Your task to perform on an android device: clear all cookies in the chrome app Image 0: 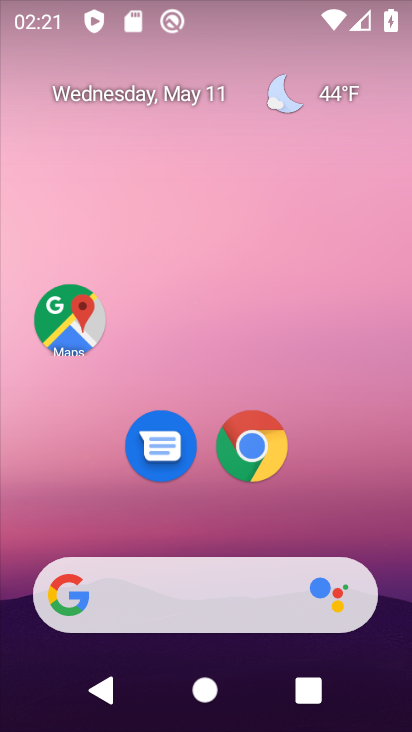
Step 0: click (252, 433)
Your task to perform on an android device: clear all cookies in the chrome app Image 1: 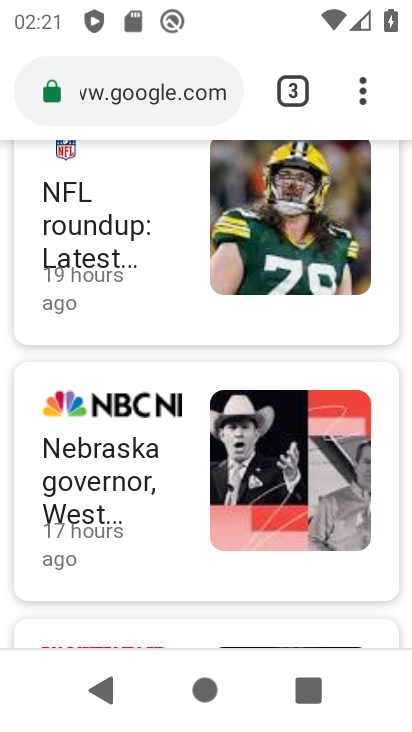
Step 1: click (365, 101)
Your task to perform on an android device: clear all cookies in the chrome app Image 2: 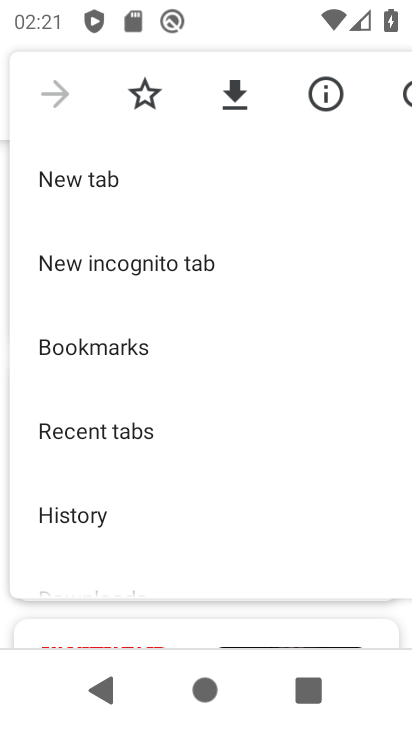
Step 2: click (119, 513)
Your task to perform on an android device: clear all cookies in the chrome app Image 3: 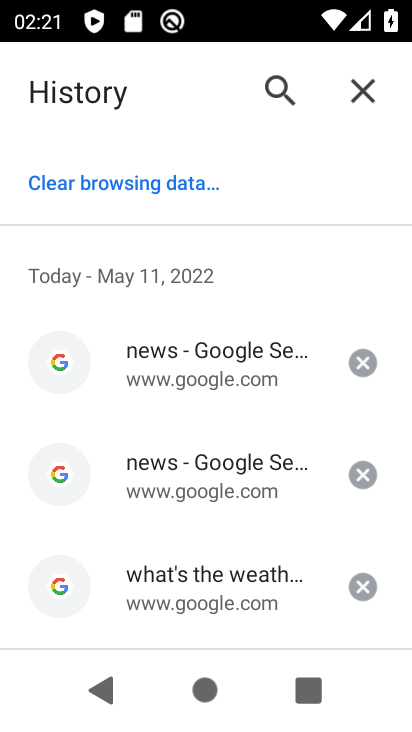
Step 3: click (104, 190)
Your task to perform on an android device: clear all cookies in the chrome app Image 4: 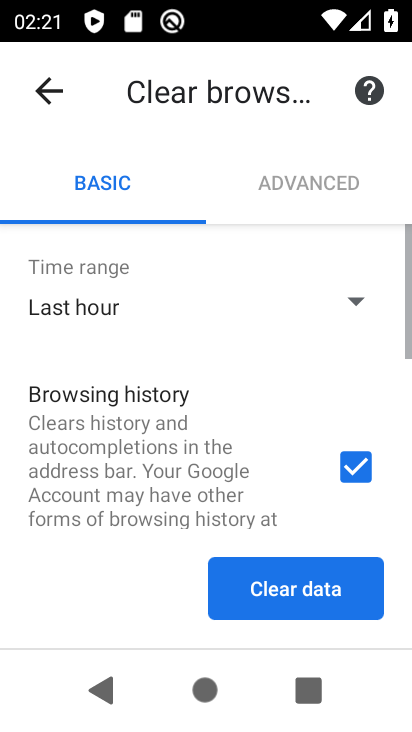
Step 4: drag from (182, 466) to (186, 221)
Your task to perform on an android device: clear all cookies in the chrome app Image 5: 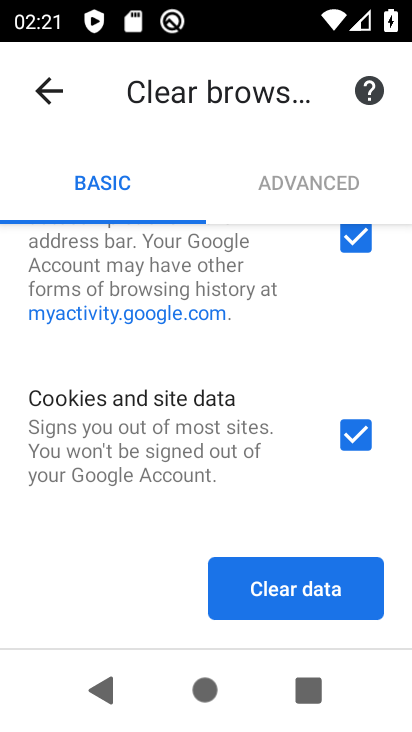
Step 5: click (260, 587)
Your task to perform on an android device: clear all cookies in the chrome app Image 6: 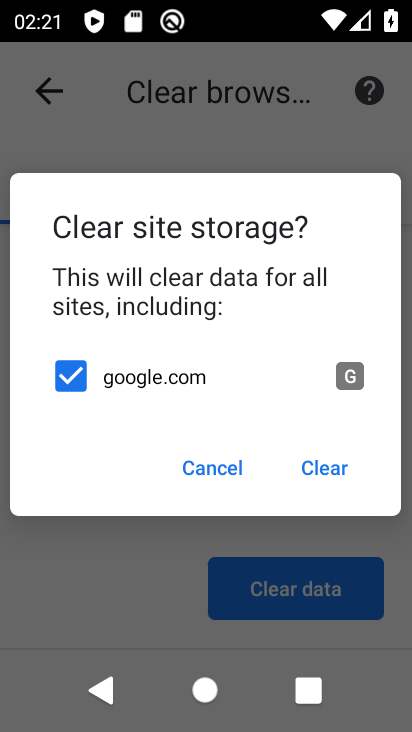
Step 6: click (328, 470)
Your task to perform on an android device: clear all cookies in the chrome app Image 7: 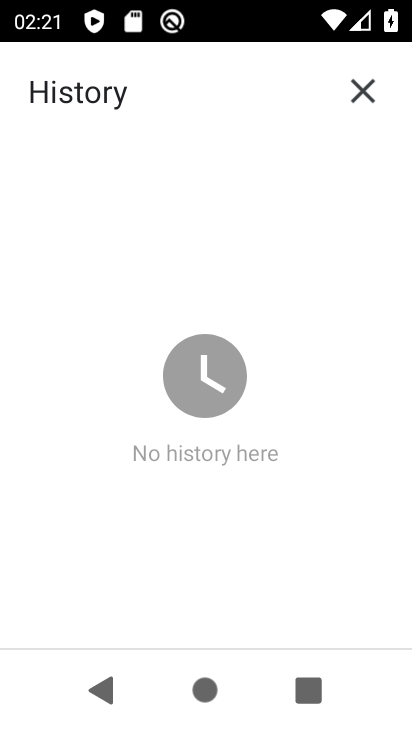
Step 7: task complete